Your task to perform on an android device: delete the emails in spam in the gmail app Image 0: 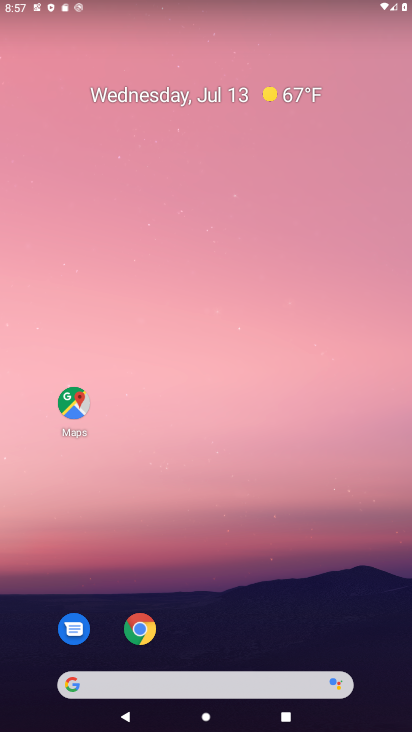
Step 0: drag from (202, 650) to (226, 105)
Your task to perform on an android device: delete the emails in spam in the gmail app Image 1: 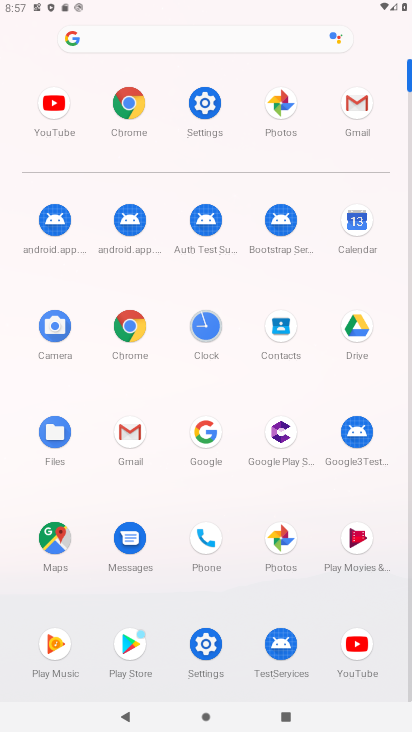
Step 1: click (133, 434)
Your task to perform on an android device: delete the emails in spam in the gmail app Image 2: 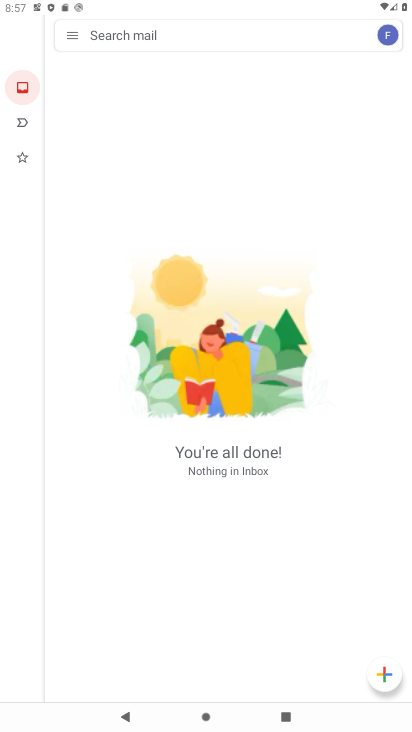
Step 2: click (72, 36)
Your task to perform on an android device: delete the emails in spam in the gmail app Image 3: 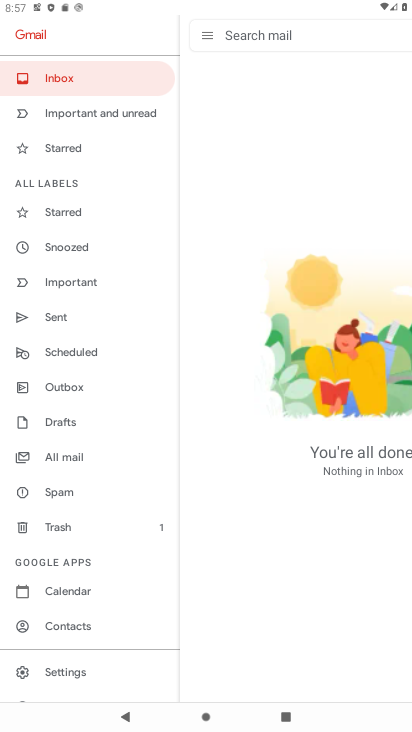
Step 3: click (71, 490)
Your task to perform on an android device: delete the emails in spam in the gmail app Image 4: 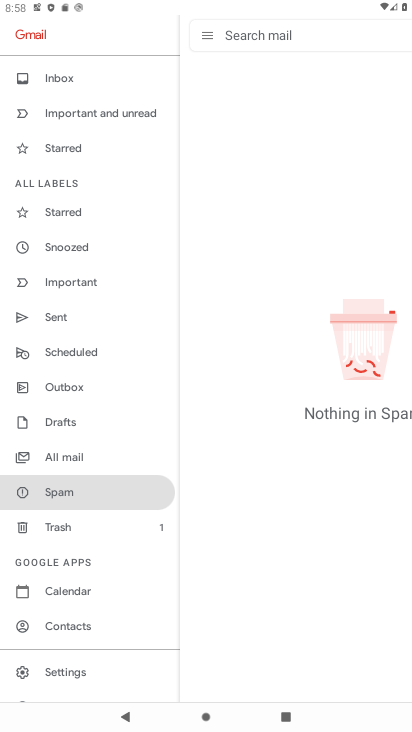
Step 4: task complete